Your task to perform on an android device: Open Reddit.com Image 0: 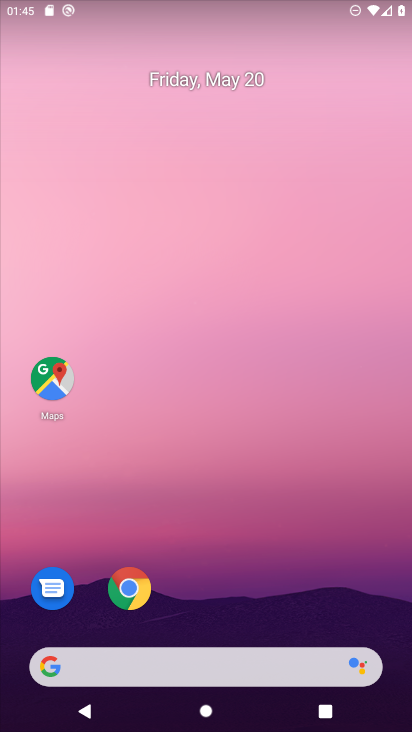
Step 0: click (129, 589)
Your task to perform on an android device: Open Reddit.com Image 1: 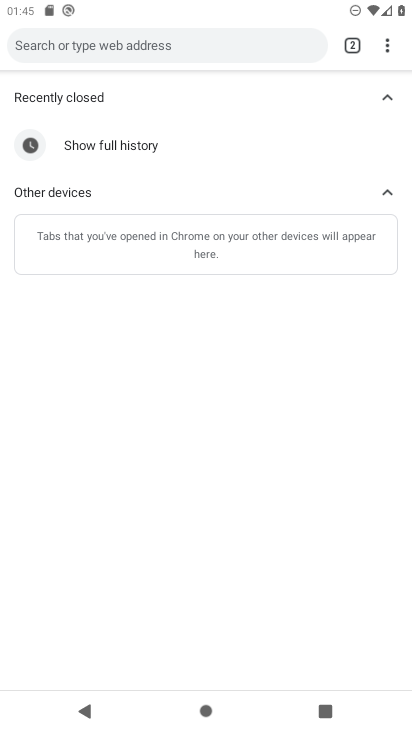
Step 1: click (134, 41)
Your task to perform on an android device: Open Reddit.com Image 2: 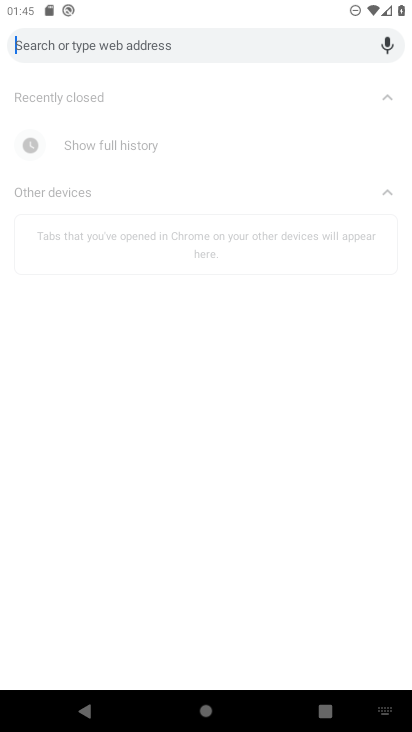
Step 2: type "reddit.com"
Your task to perform on an android device: Open Reddit.com Image 3: 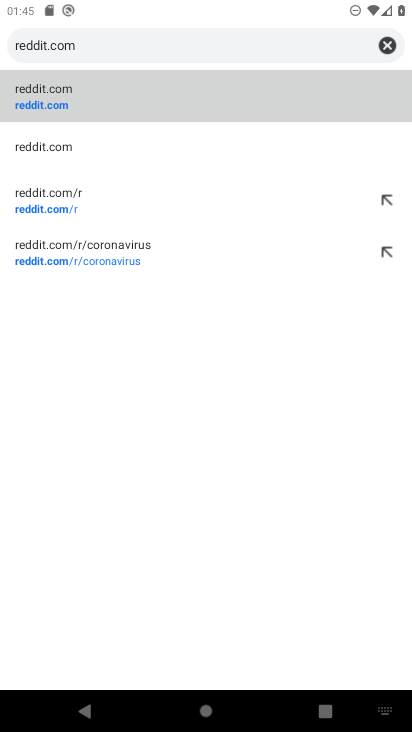
Step 3: click (47, 102)
Your task to perform on an android device: Open Reddit.com Image 4: 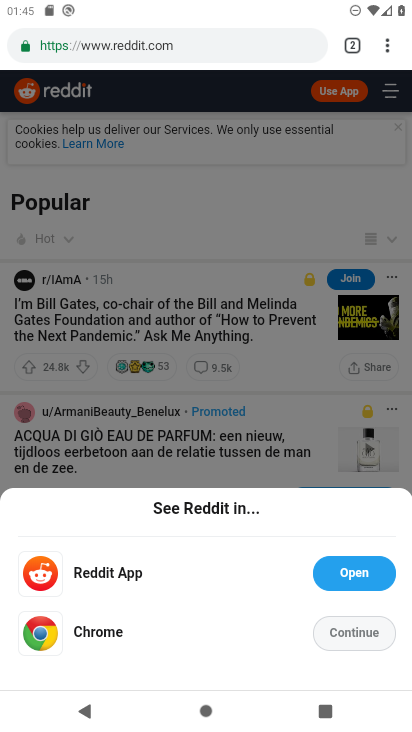
Step 4: task complete